Your task to perform on an android device: Search for "jbl flip 4" on amazon, select the first entry, and add it to the cart. Image 0: 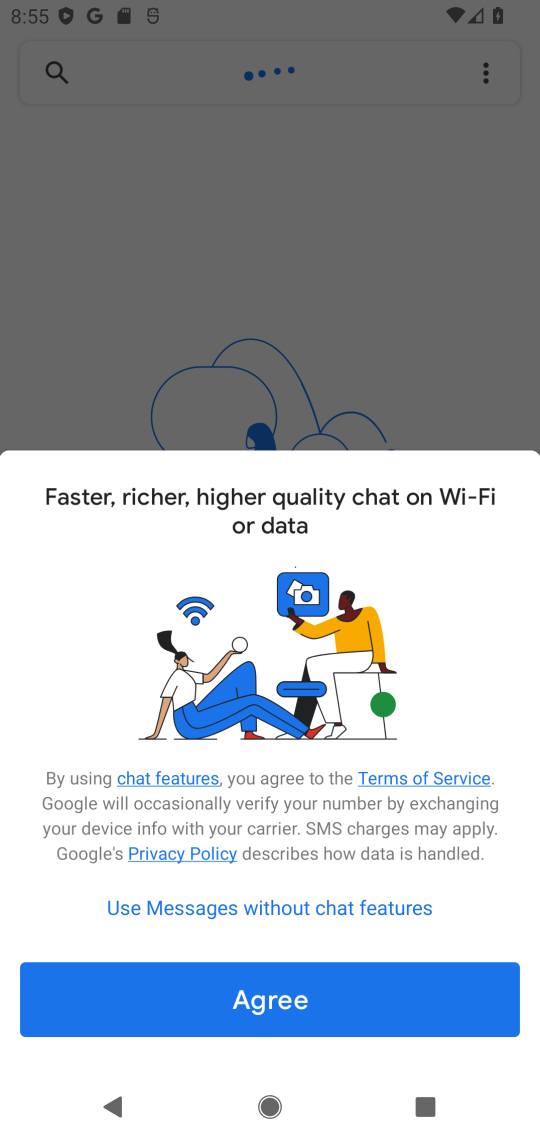
Step 0: press home button
Your task to perform on an android device: Search for "jbl flip 4" on amazon, select the first entry, and add it to the cart. Image 1: 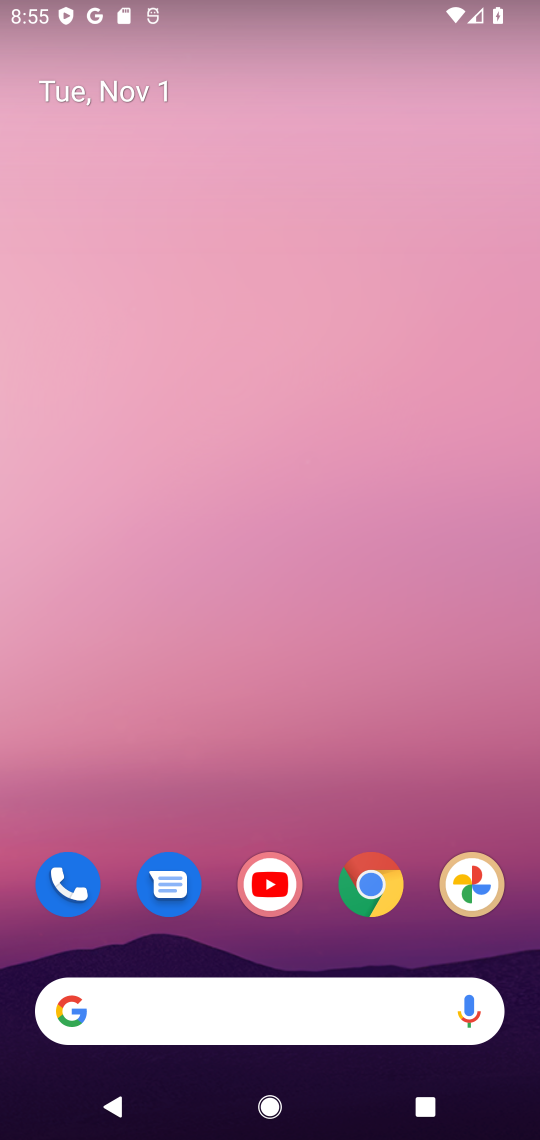
Step 1: click (378, 879)
Your task to perform on an android device: Search for "jbl flip 4" on amazon, select the first entry, and add it to the cart. Image 2: 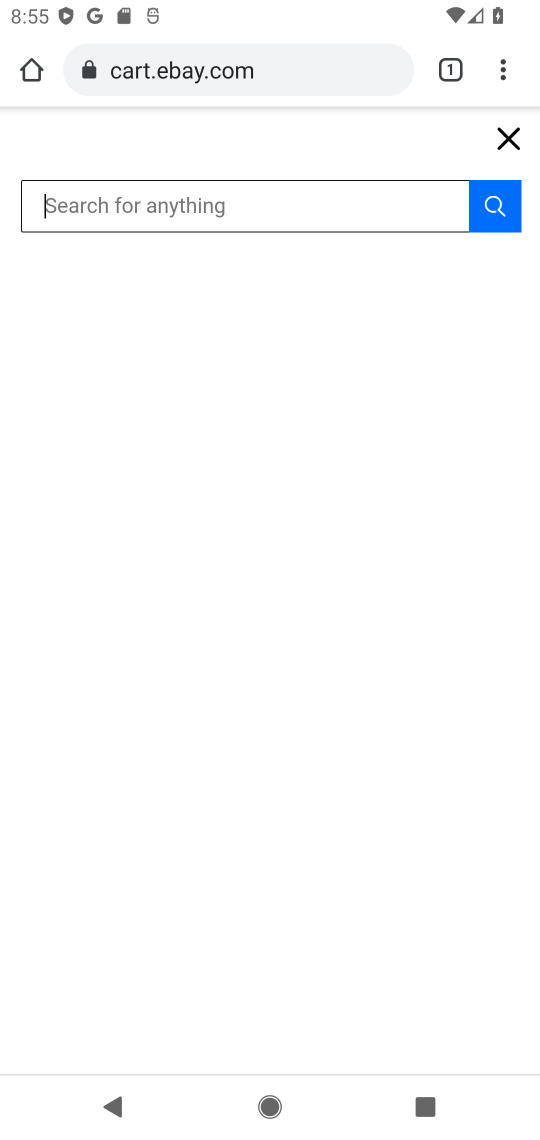
Step 2: click (251, 58)
Your task to perform on an android device: Search for "jbl flip 4" on amazon, select the first entry, and add it to the cart. Image 3: 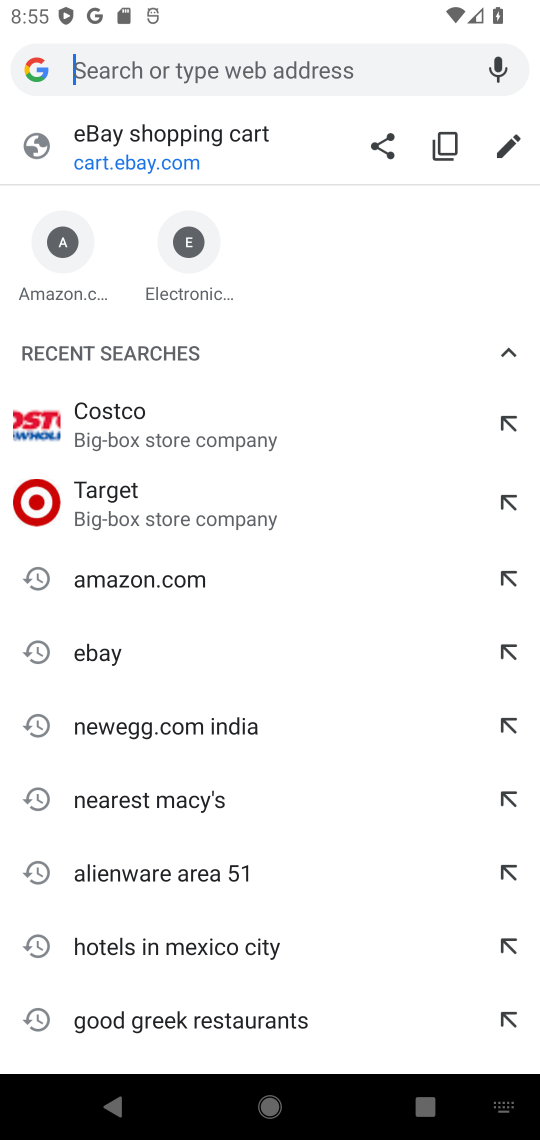
Step 3: type "amazon"
Your task to perform on an android device: Search for "jbl flip 4" on amazon, select the first entry, and add it to the cart. Image 4: 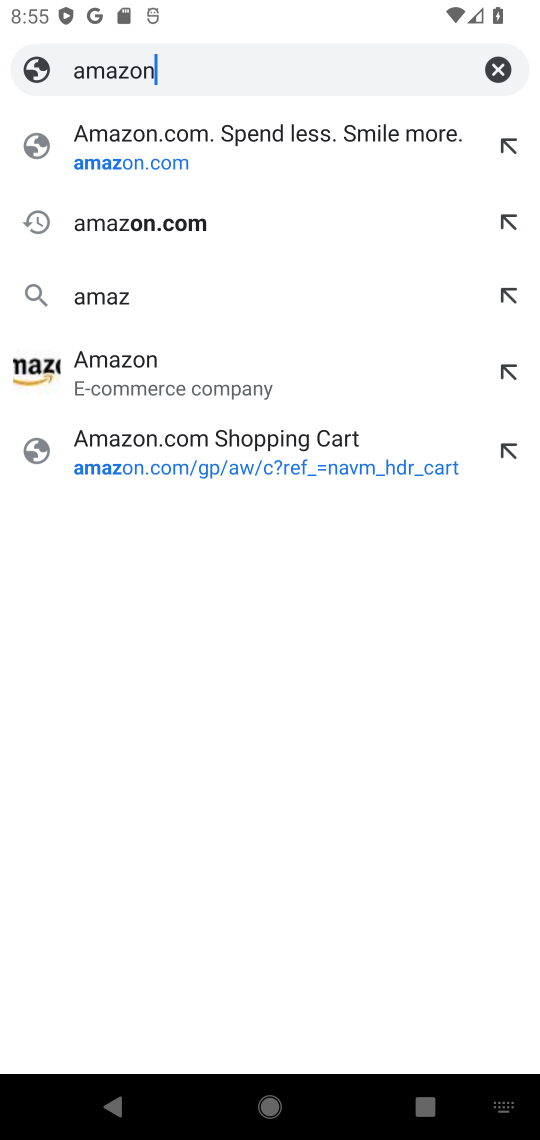
Step 4: press enter
Your task to perform on an android device: Search for "jbl flip 4" on amazon, select the first entry, and add it to the cart. Image 5: 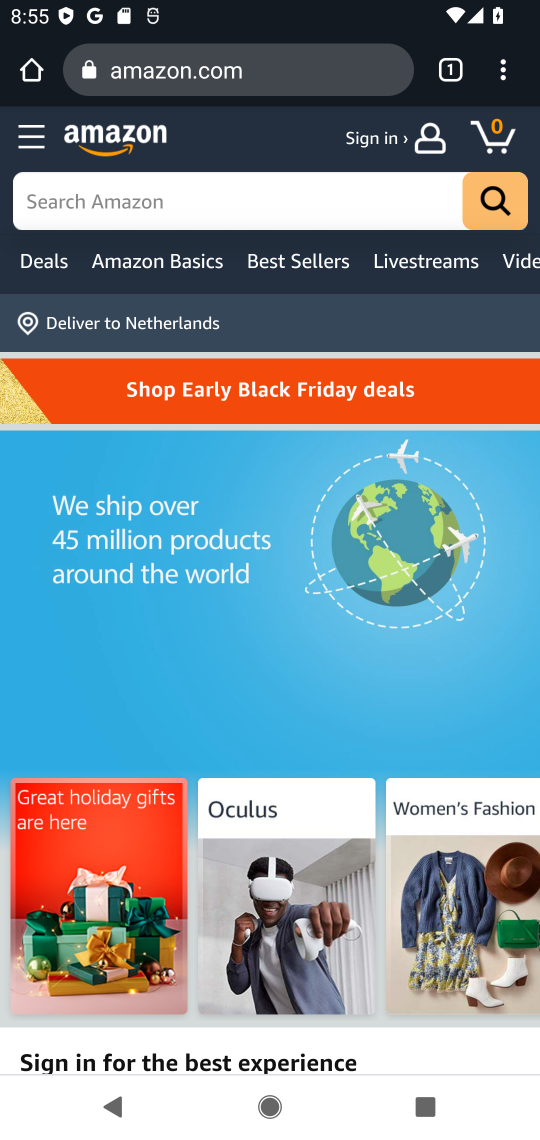
Step 5: click (120, 183)
Your task to perform on an android device: Search for "jbl flip 4" on amazon, select the first entry, and add it to the cart. Image 6: 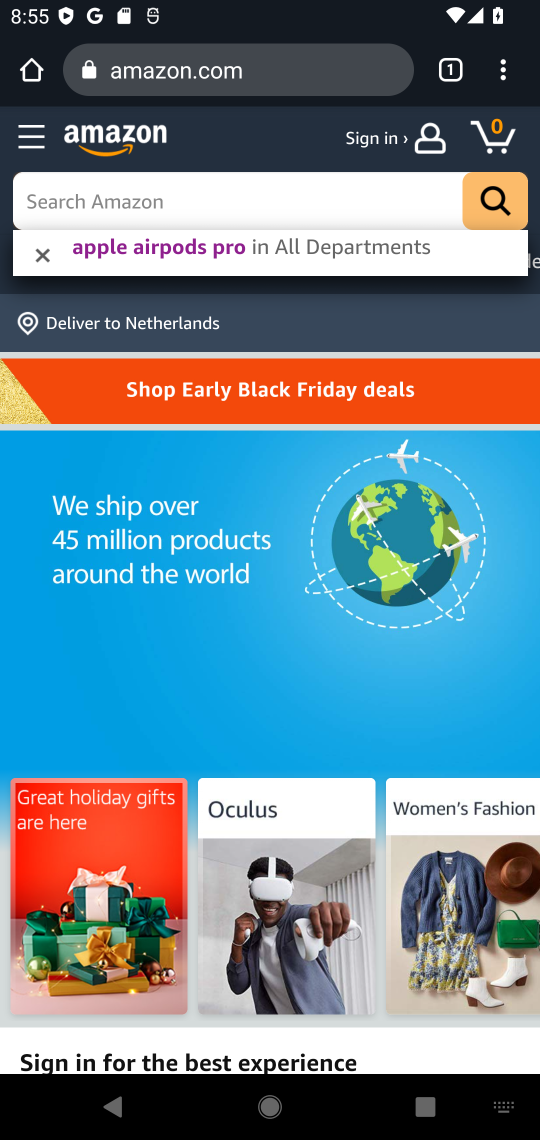
Step 6: type "jbl flip 4"
Your task to perform on an android device: Search for "jbl flip 4" on amazon, select the first entry, and add it to the cart. Image 7: 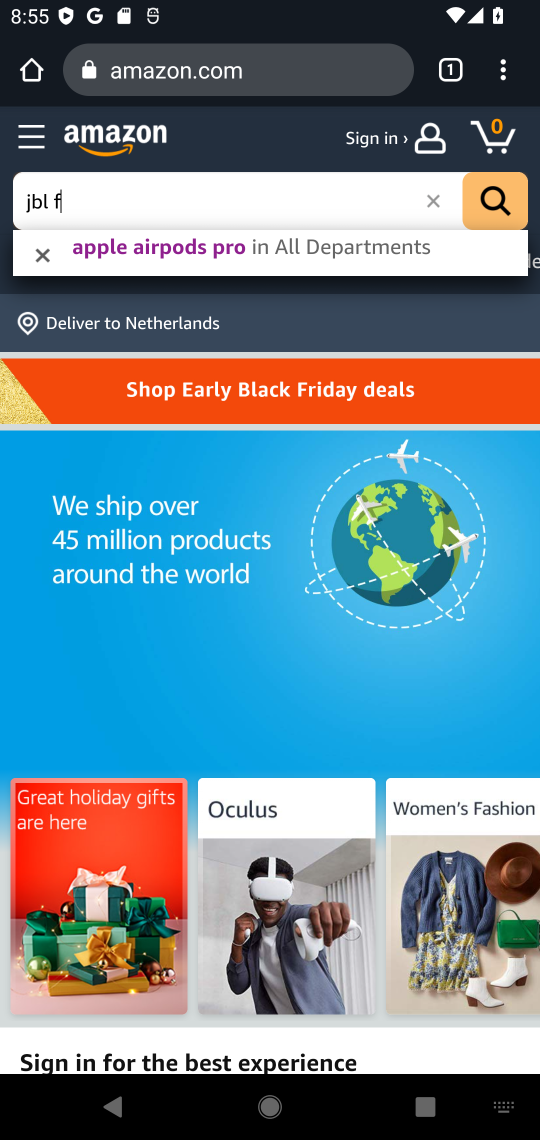
Step 7: press enter
Your task to perform on an android device: Search for "jbl flip 4" on amazon, select the first entry, and add it to the cart. Image 8: 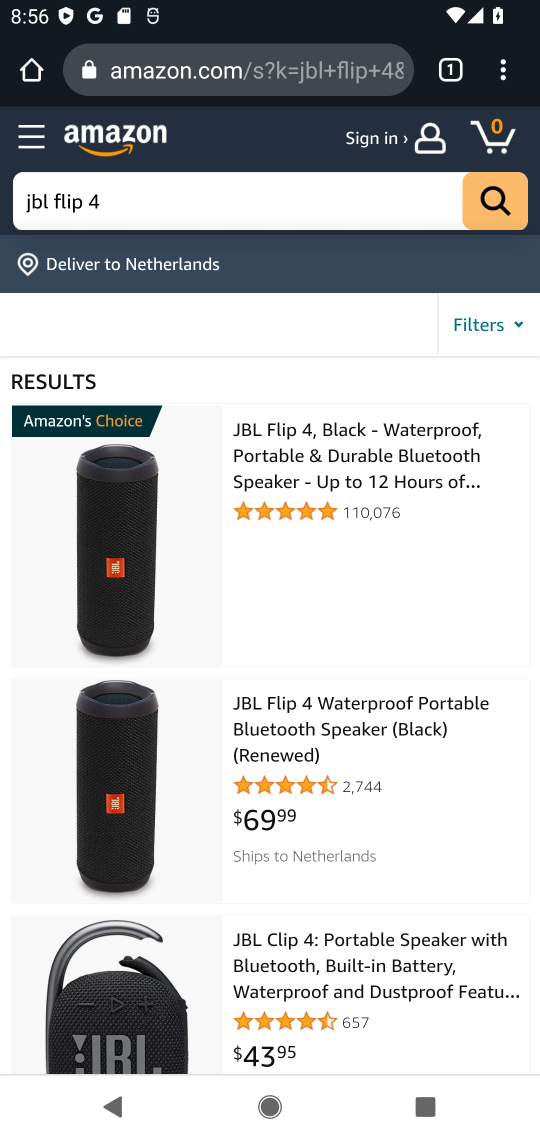
Step 8: click (102, 544)
Your task to perform on an android device: Search for "jbl flip 4" on amazon, select the first entry, and add it to the cart. Image 9: 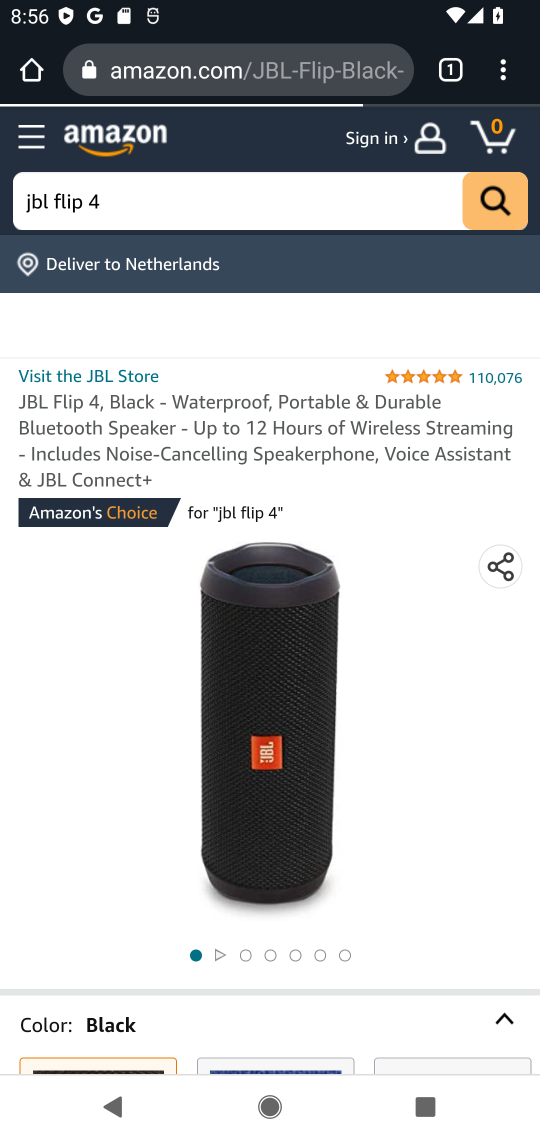
Step 9: drag from (430, 857) to (343, 244)
Your task to perform on an android device: Search for "jbl flip 4" on amazon, select the first entry, and add it to the cart. Image 10: 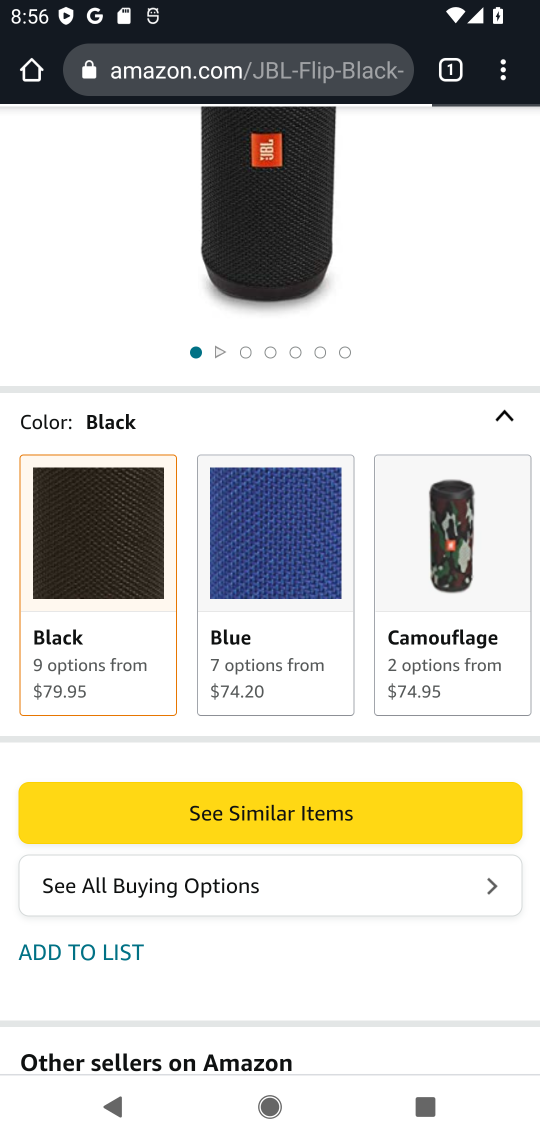
Step 10: drag from (351, 830) to (450, 335)
Your task to perform on an android device: Search for "jbl flip 4" on amazon, select the first entry, and add it to the cart. Image 11: 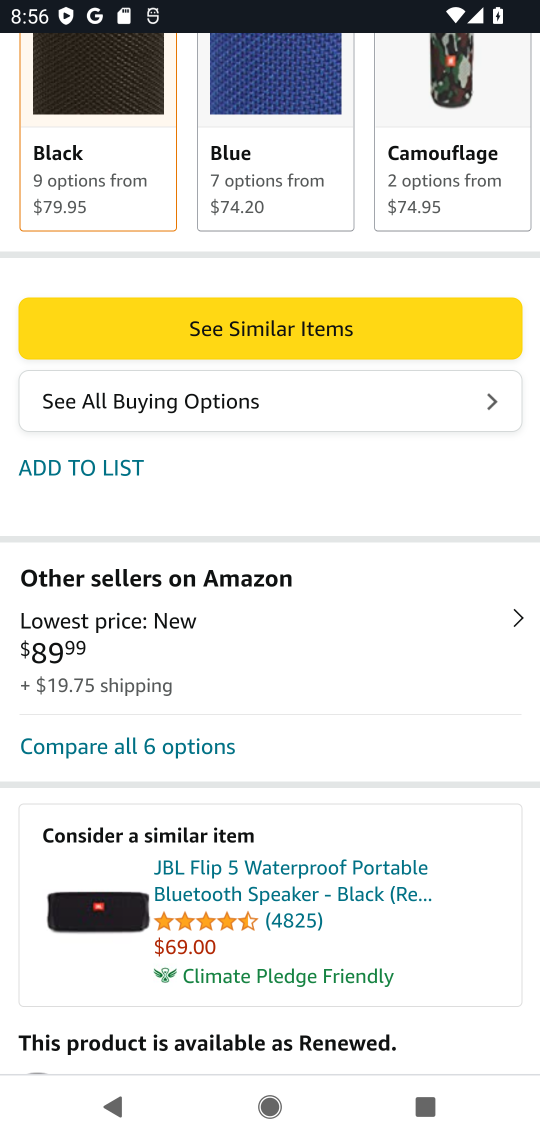
Step 11: drag from (379, 634) to (430, 578)
Your task to perform on an android device: Search for "jbl flip 4" on amazon, select the first entry, and add it to the cart. Image 12: 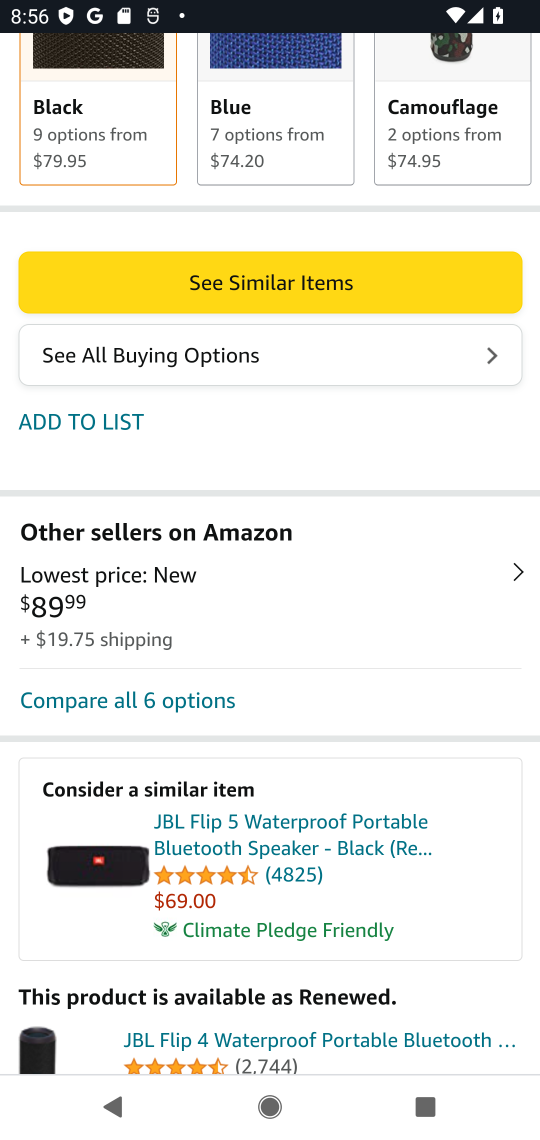
Step 12: drag from (445, 333) to (403, 678)
Your task to perform on an android device: Search for "jbl flip 4" on amazon, select the first entry, and add it to the cart. Image 13: 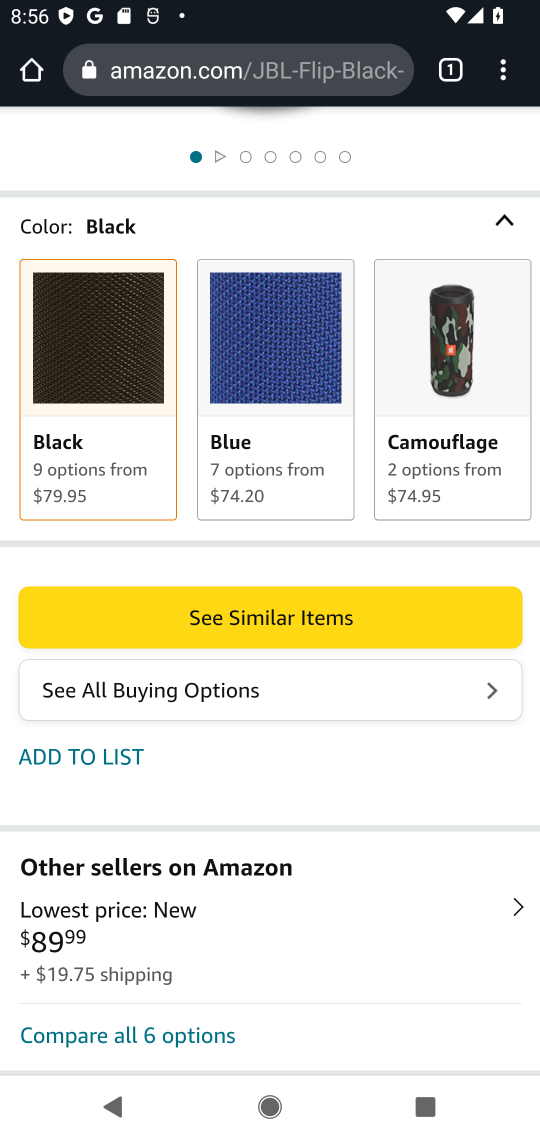
Step 13: click (85, 744)
Your task to perform on an android device: Search for "jbl flip 4" on amazon, select the first entry, and add it to the cart. Image 14: 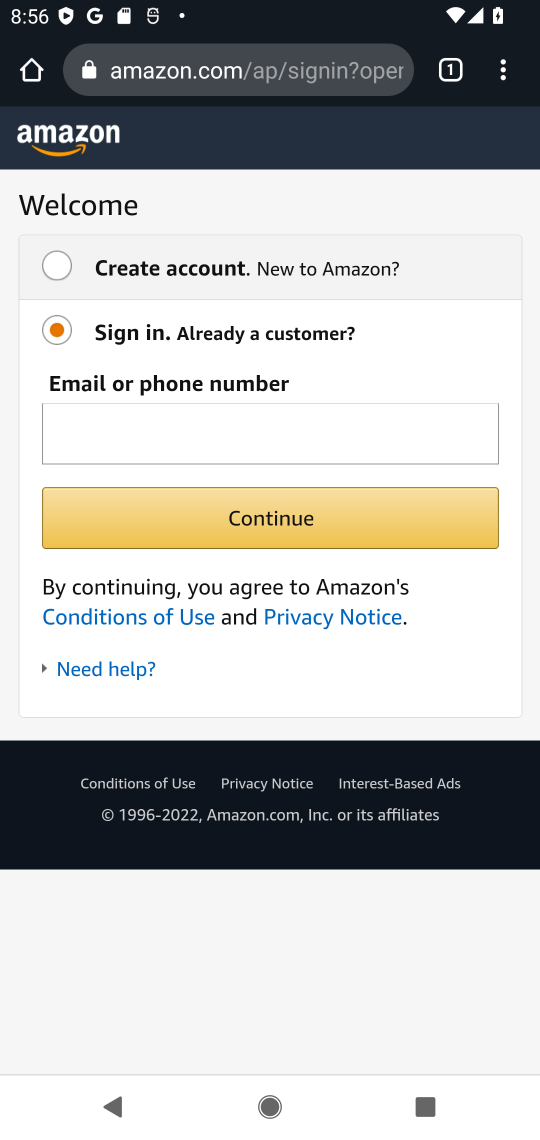
Step 14: task complete